Your task to perform on an android device: turn off airplane mode Image 0: 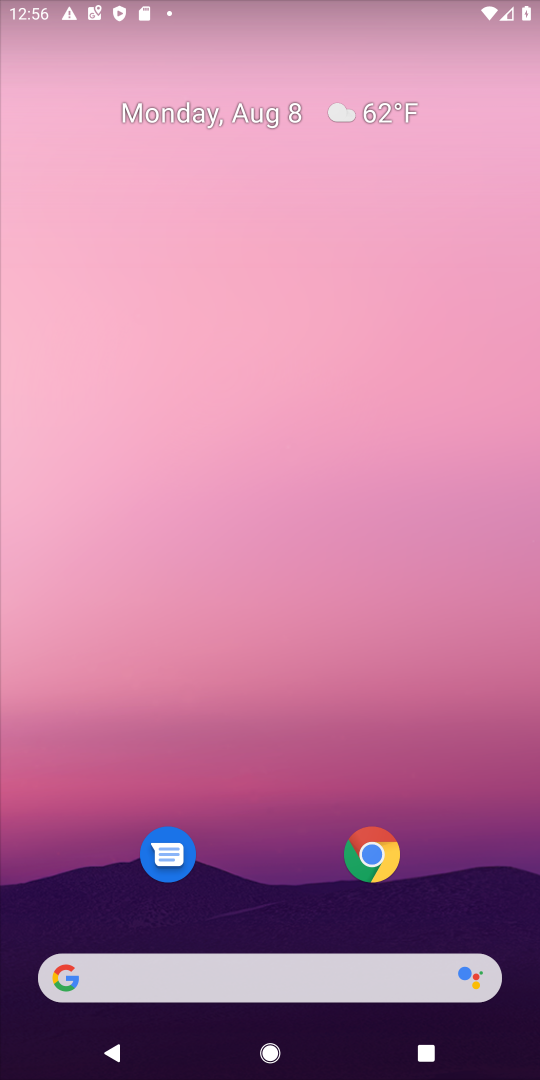
Step 0: press home button
Your task to perform on an android device: turn off airplane mode Image 1: 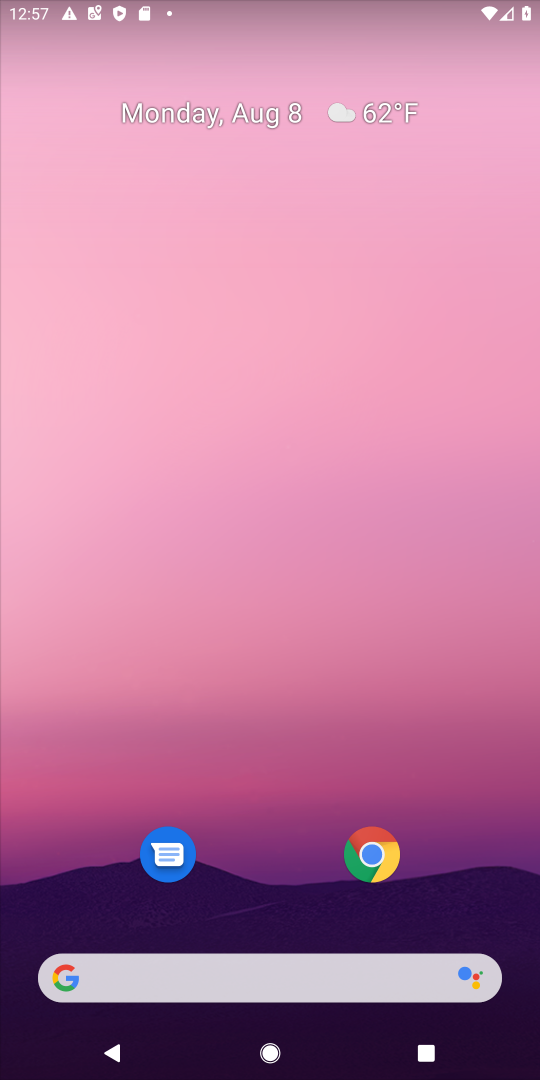
Step 1: drag from (302, 933) to (209, 153)
Your task to perform on an android device: turn off airplane mode Image 2: 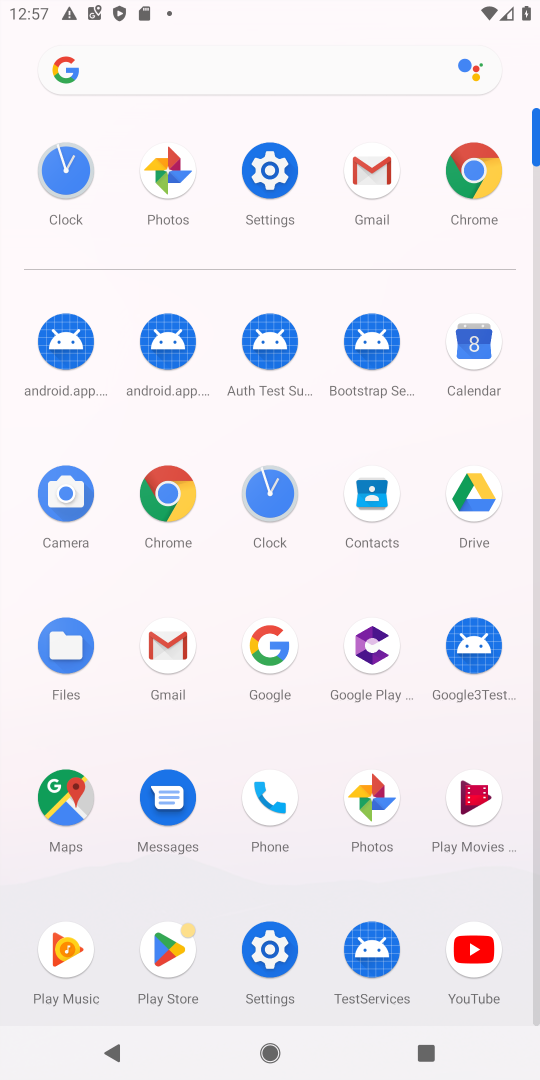
Step 2: click (262, 160)
Your task to perform on an android device: turn off airplane mode Image 3: 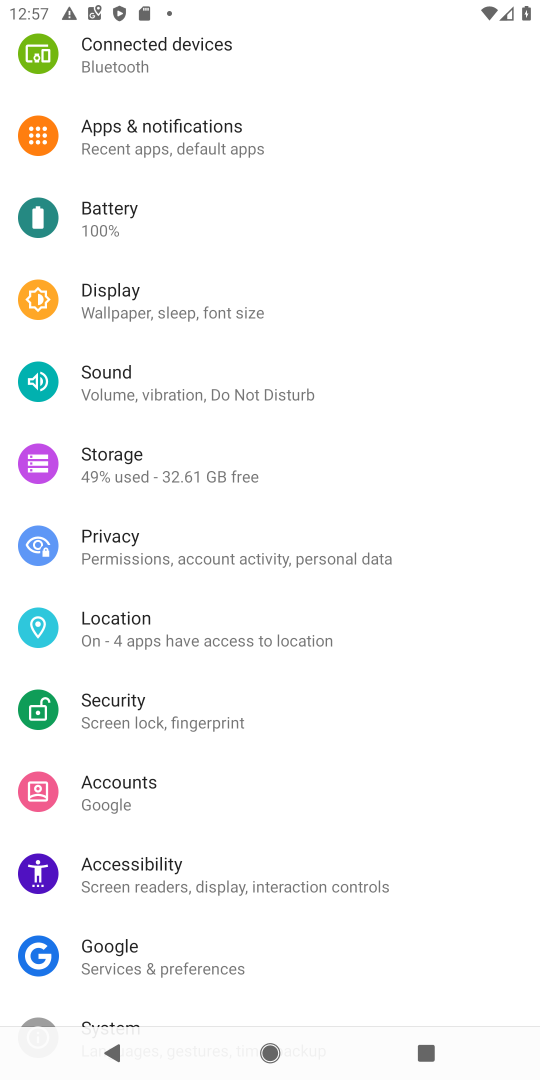
Step 3: drag from (190, 473) to (185, 733)
Your task to perform on an android device: turn off airplane mode Image 4: 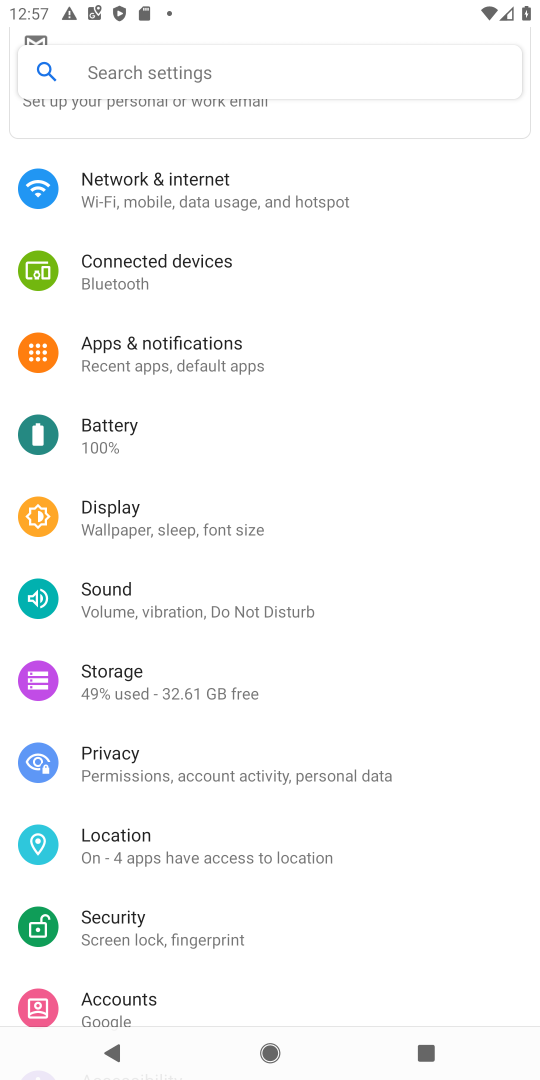
Step 4: click (180, 170)
Your task to perform on an android device: turn off airplane mode Image 5: 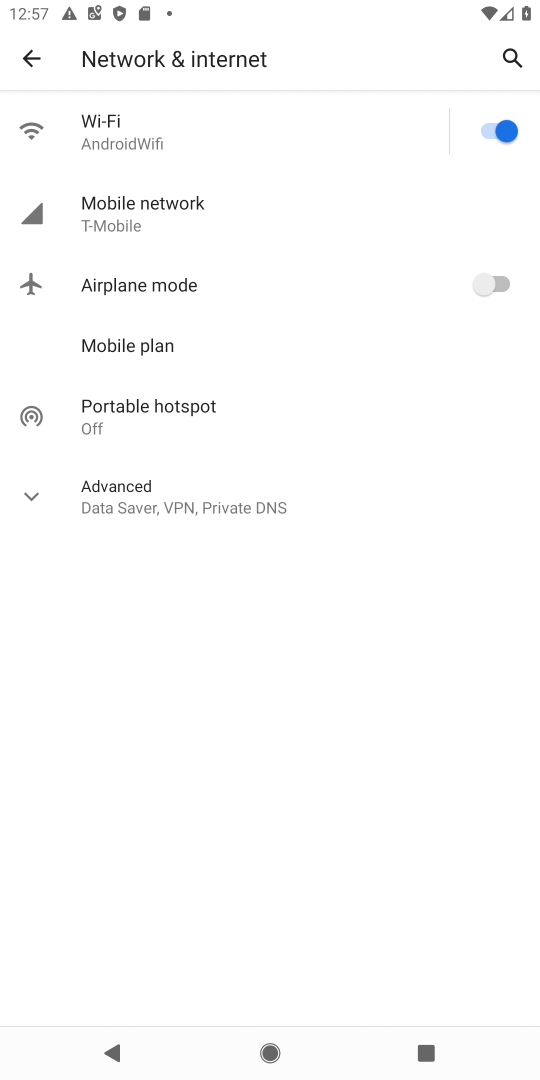
Step 5: task complete